Your task to perform on an android device: Open Yahoo.com Image 0: 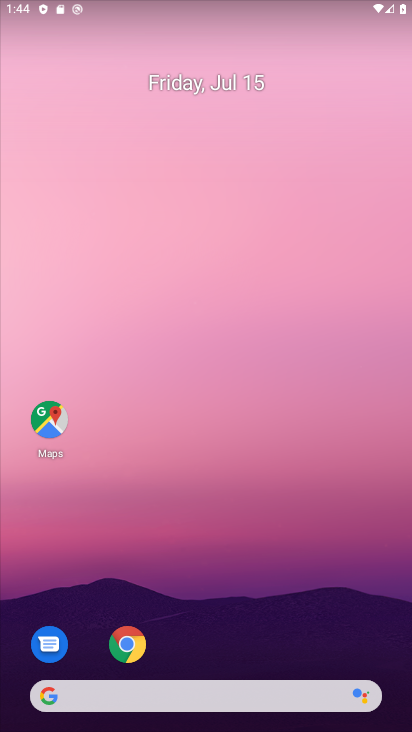
Step 0: click (112, 690)
Your task to perform on an android device: Open Yahoo.com Image 1: 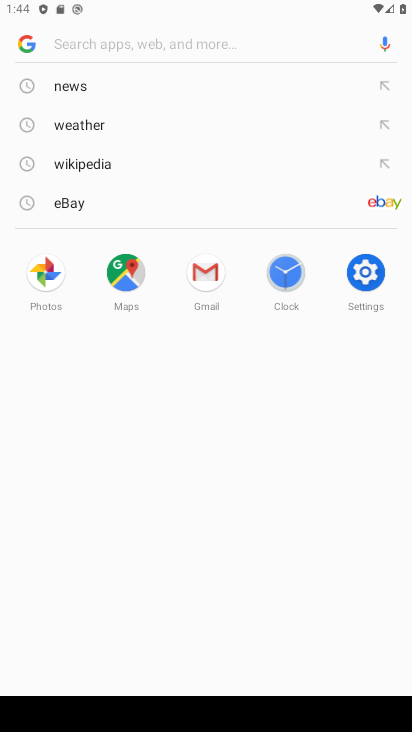
Step 1: type "Yahoo.com"
Your task to perform on an android device: Open Yahoo.com Image 2: 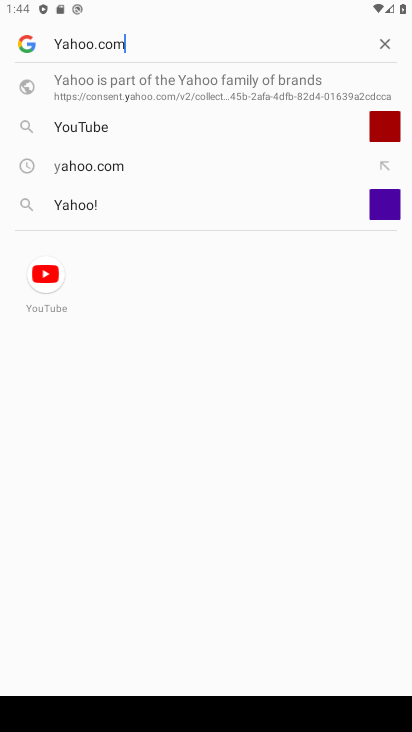
Step 2: type ""
Your task to perform on an android device: Open Yahoo.com Image 3: 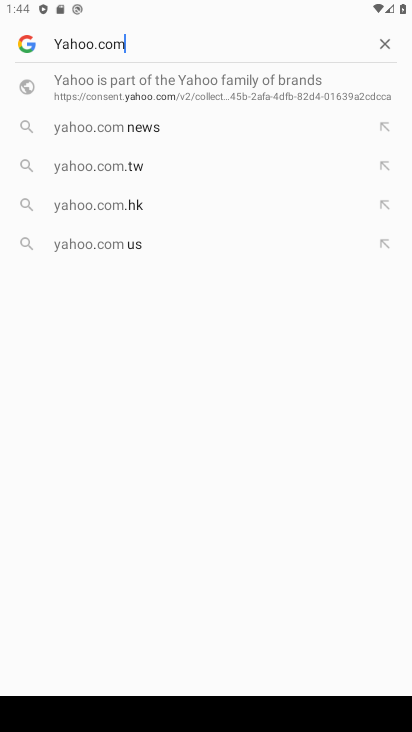
Step 3: type ""
Your task to perform on an android device: Open Yahoo.com Image 4: 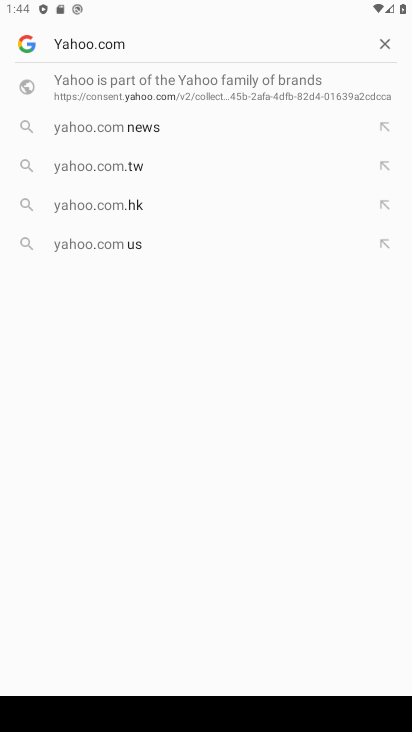
Step 4: type ""
Your task to perform on an android device: Open Yahoo.com Image 5: 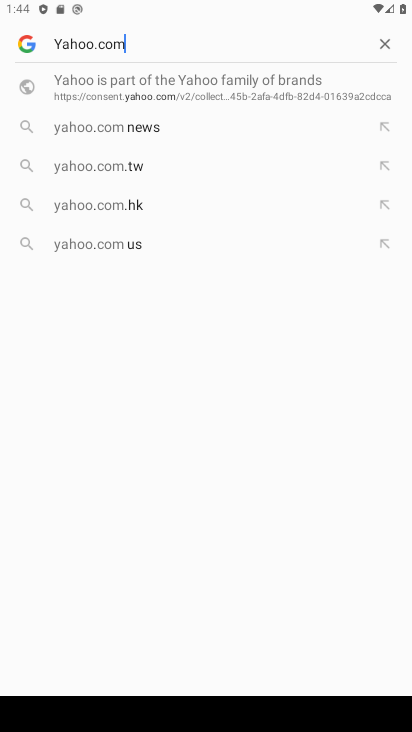
Step 5: task complete